Your task to perform on an android device: Turn off the flashlight Image 0: 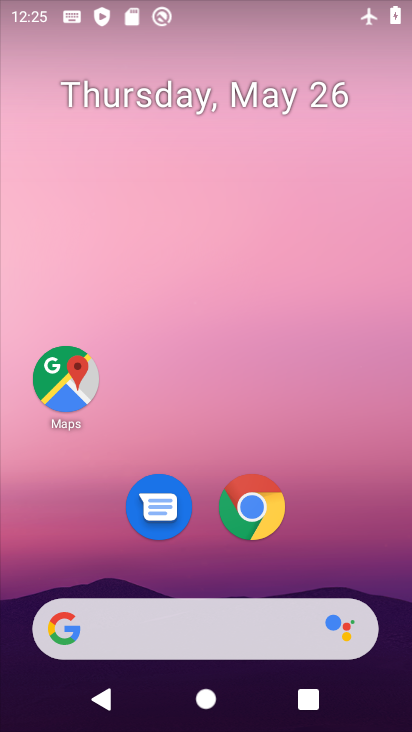
Step 0: drag from (198, 578) to (253, 174)
Your task to perform on an android device: Turn off the flashlight Image 1: 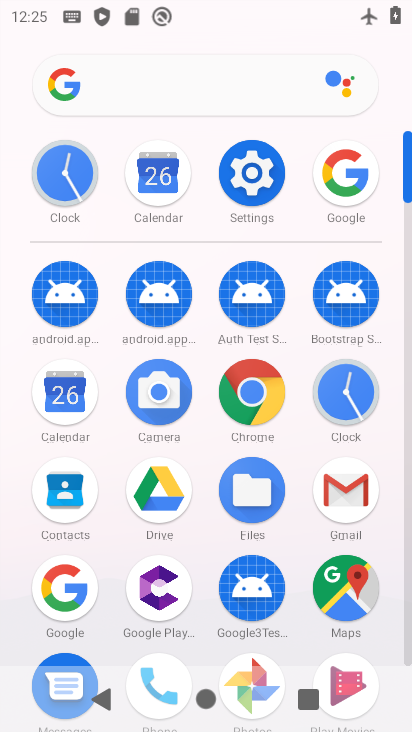
Step 1: click (253, 174)
Your task to perform on an android device: Turn off the flashlight Image 2: 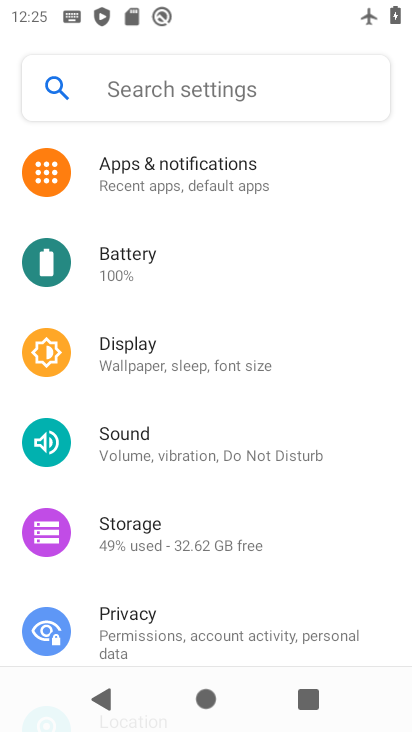
Step 2: task complete